Your task to perform on an android device: Turn off the flashlight Image 0: 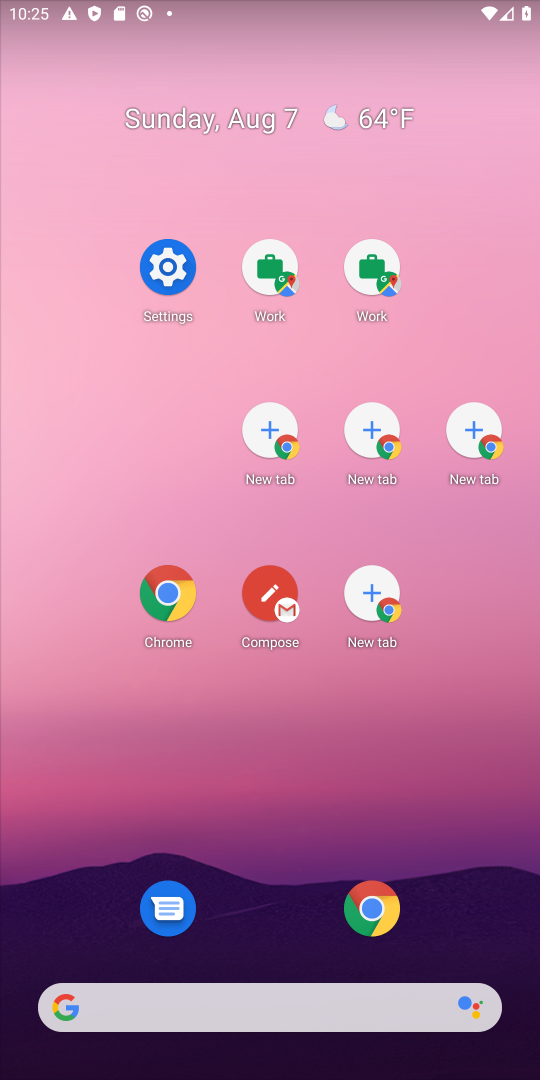
Step 0: drag from (366, 967) to (181, 274)
Your task to perform on an android device: Turn off the flashlight Image 1: 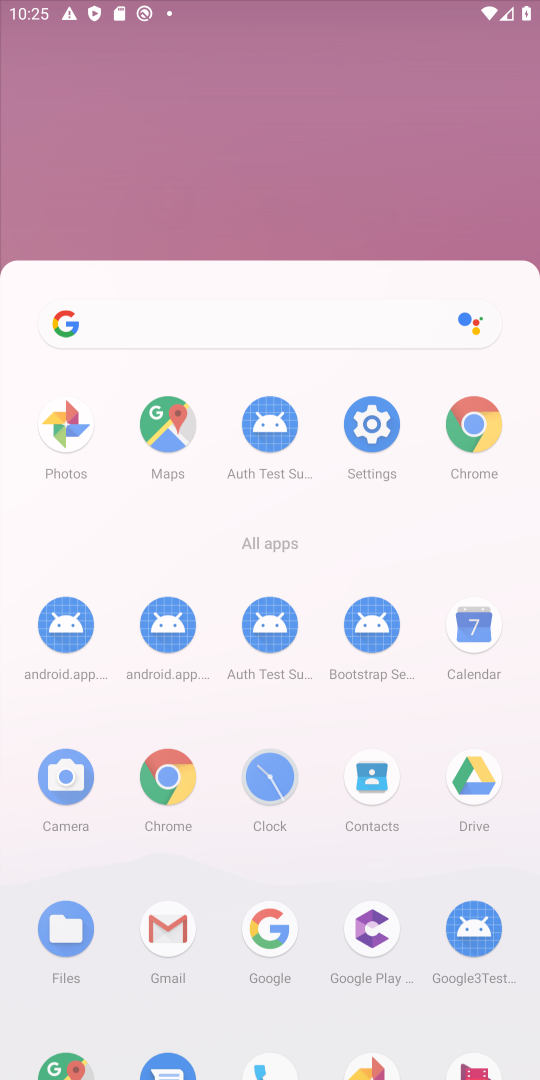
Step 1: drag from (238, 616) to (296, 44)
Your task to perform on an android device: Turn off the flashlight Image 2: 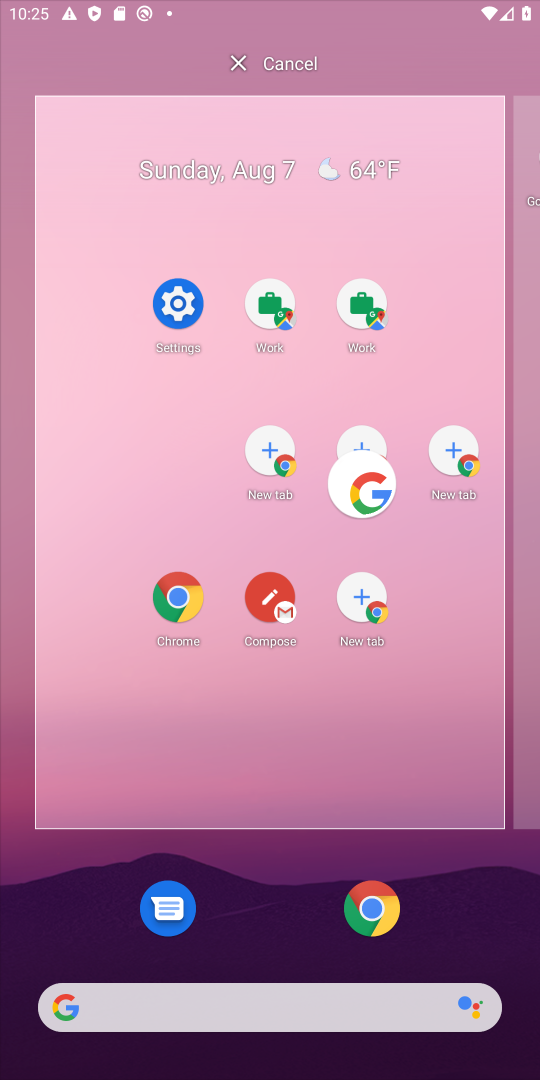
Step 2: click (349, 83)
Your task to perform on an android device: Turn off the flashlight Image 3: 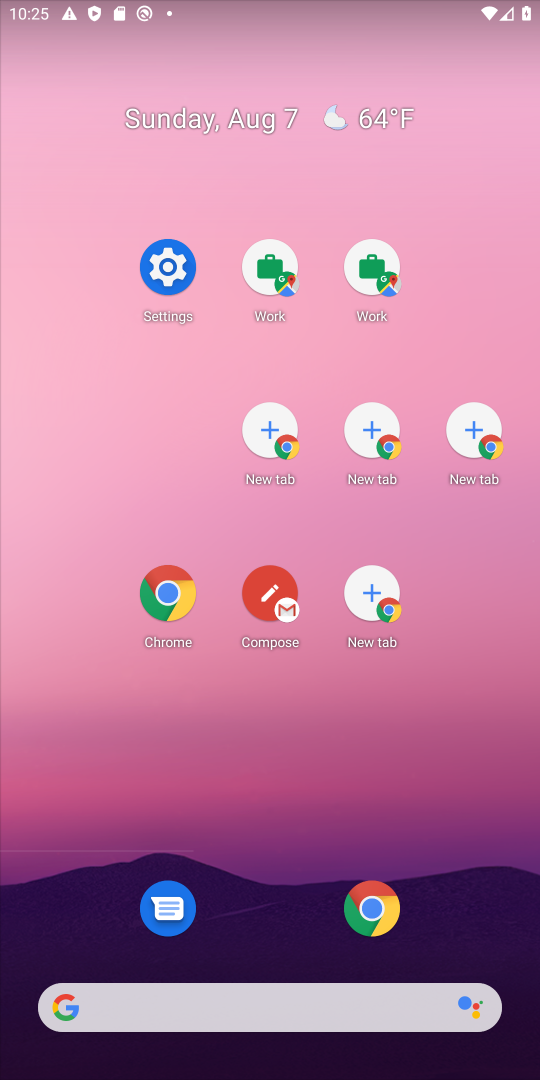
Step 3: task complete